Your task to perform on an android device: turn on showing notifications on the lock screen Image 0: 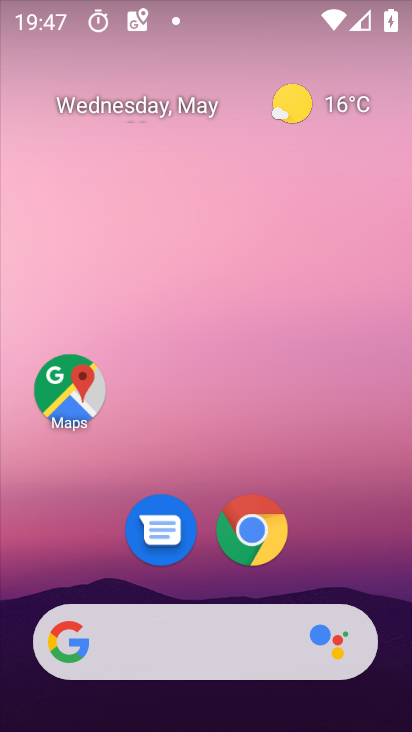
Step 0: drag from (199, 412) to (215, 148)
Your task to perform on an android device: turn on showing notifications on the lock screen Image 1: 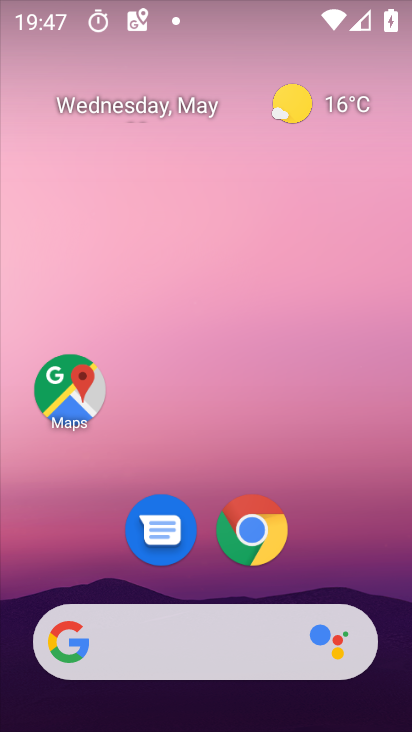
Step 1: drag from (211, 583) to (253, 211)
Your task to perform on an android device: turn on showing notifications on the lock screen Image 2: 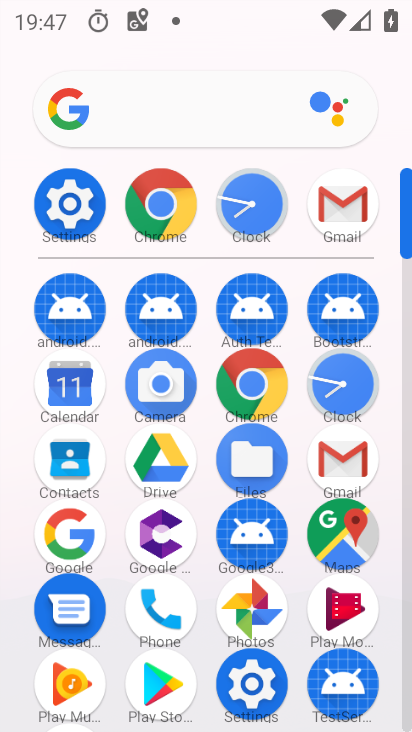
Step 2: click (261, 678)
Your task to perform on an android device: turn on showing notifications on the lock screen Image 3: 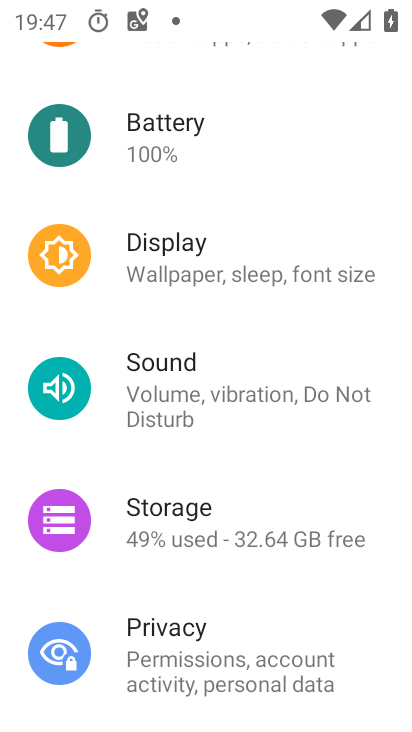
Step 3: drag from (211, 185) to (281, 587)
Your task to perform on an android device: turn on showing notifications on the lock screen Image 4: 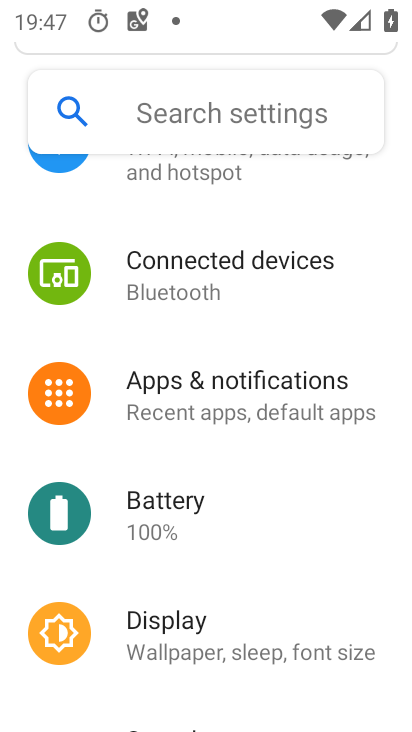
Step 4: click (237, 389)
Your task to perform on an android device: turn on showing notifications on the lock screen Image 5: 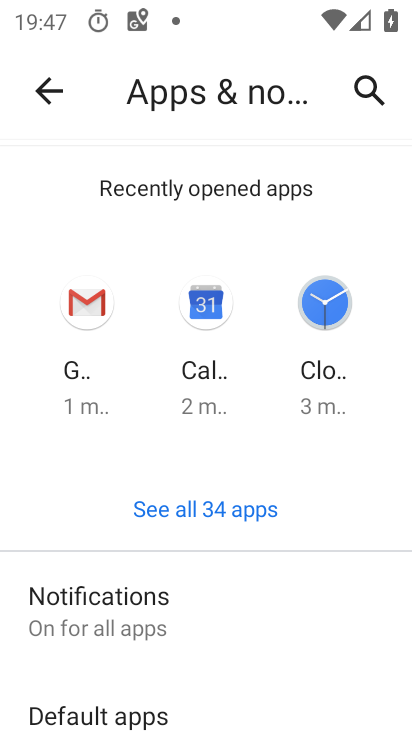
Step 5: click (130, 603)
Your task to perform on an android device: turn on showing notifications on the lock screen Image 6: 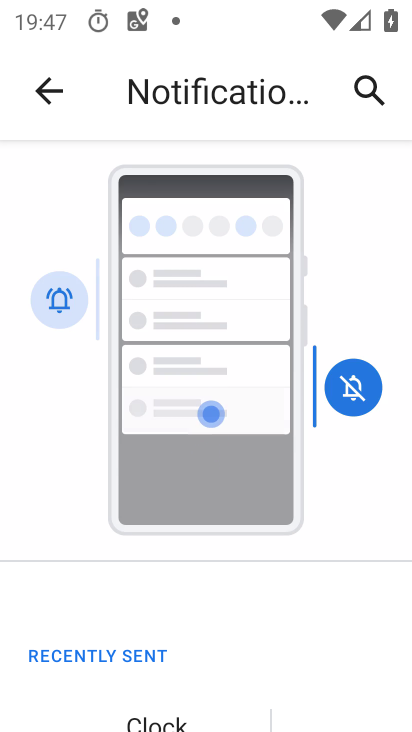
Step 6: drag from (158, 690) to (155, 373)
Your task to perform on an android device: turn on showing notifications on the lock screen Image 7: 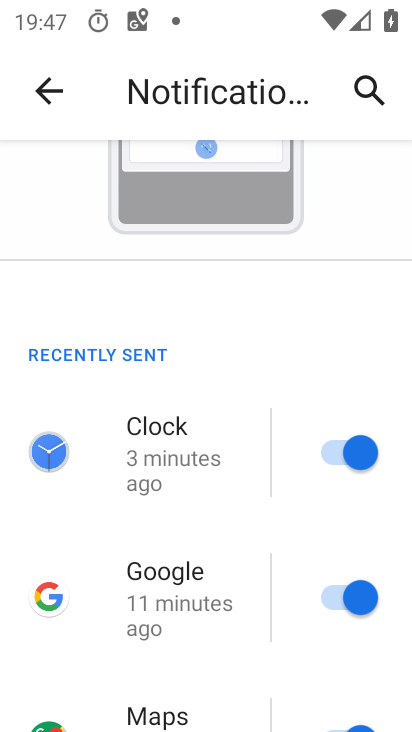
Step 7: drag from (166, 637) to (171, 352)
Your task to perform on an android device: turn on showing notifications on the lock screen Image 8: 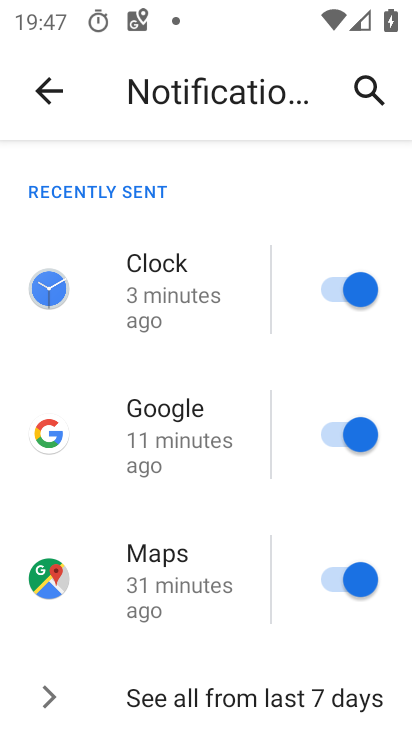
Step 8: drag from (44, 593) to (76, 337)
Your task to perform on an android device: turn on showing notifications on the lock screen Image 9: 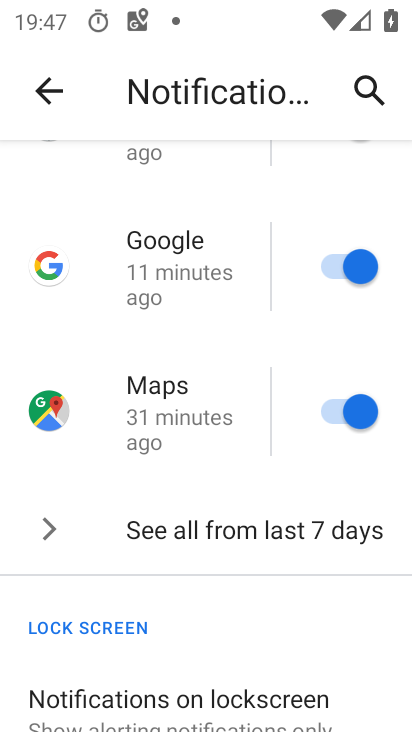
Step 9: drag from (111, 662) to (144, 393)
Your task to perform on an android device: turn on showing notifications on the lock screen Image 10: 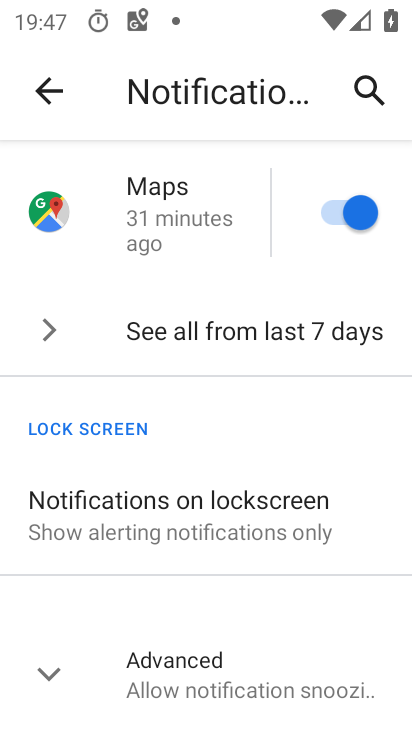
Step 10: click (59, 517)
Your task to perform on an android device: turn on showing notifications on the lock screen Image 11: 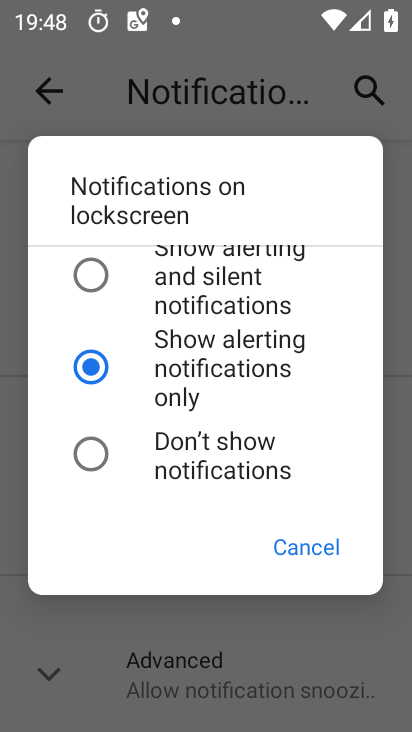
Step 11: click (87, 265)
Your task to perform on an android device: turn on showing notifications on the lock screen Image 12: 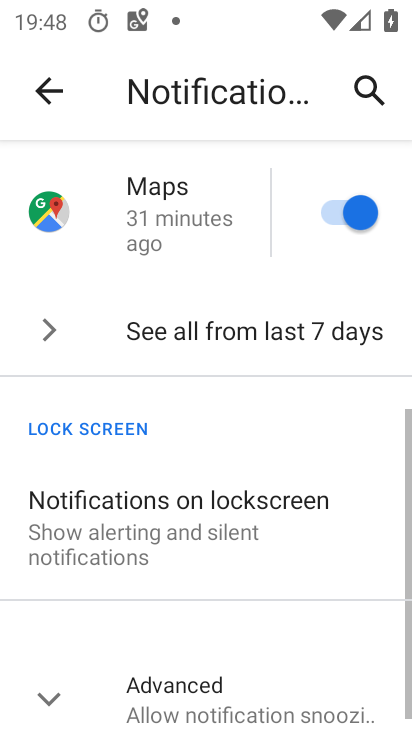
Step 12: task complete